Your task to perform on an android device: Open the calendar app, open the side menu, and click the "Day" option Image 0: 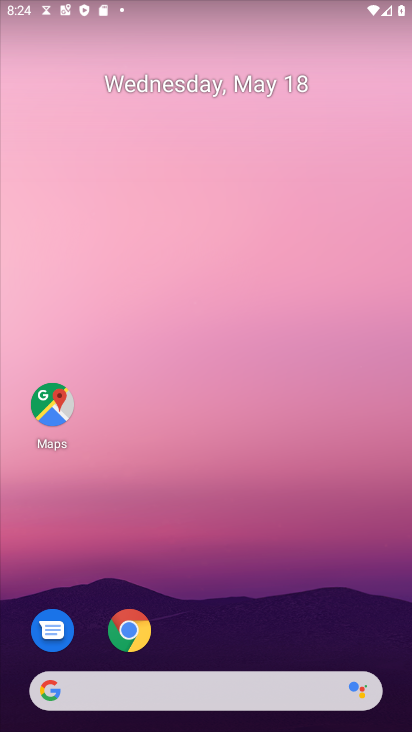
Step 0: press home button
Your task to perform on an android device: Open the calendar app, open the side menu, and click the "Day" option Image 1: 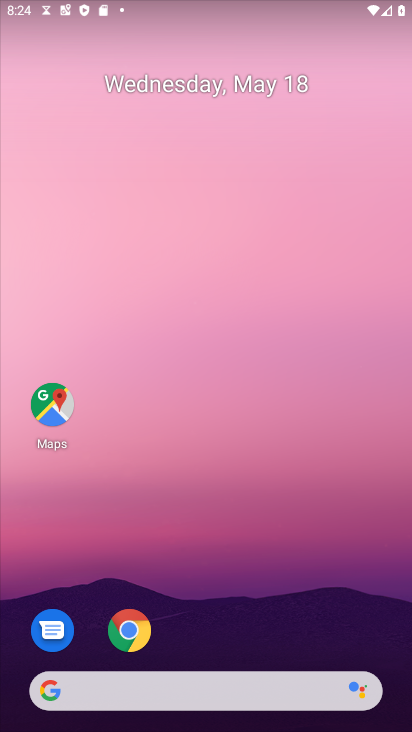
Step 1: drag from (147, 696) to (313, 221)
Your task to perform on an android device: Open the calendar app, open the side menu, and click the "Day" option Image 2: 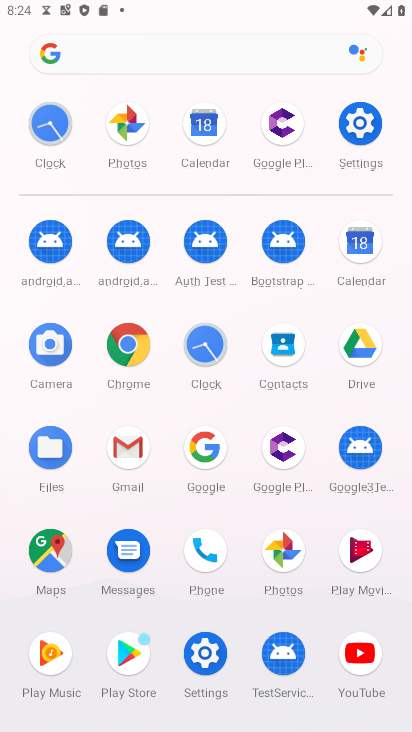
Step 2: click (357, 256)
Your task to perform on an android device: Open the calendar app, open the side menu, and click the "Day" option Image 3: 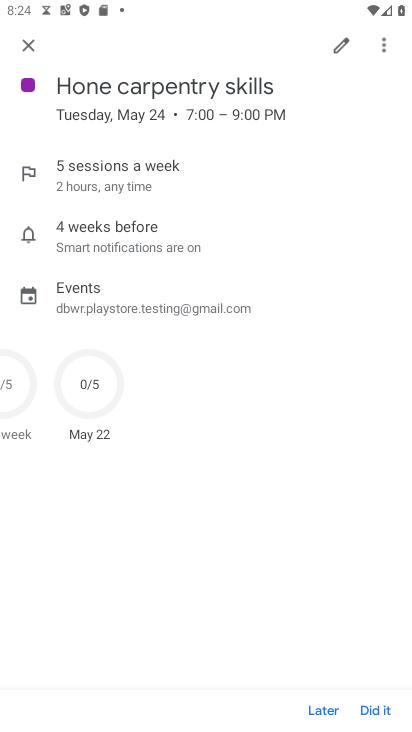
Step 3: click (30, 45)
Your task to perform on an android device: Open the calendar app, open the side menu, and click the "Day" option Image 4: 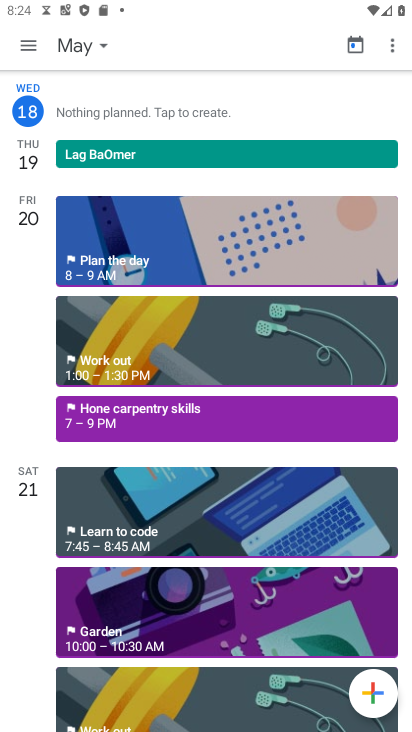
Step 4: click (30, 43)
Your task to perform on an android device: Open the calendar app, open the side menu, and click the "Day" option Image 5: 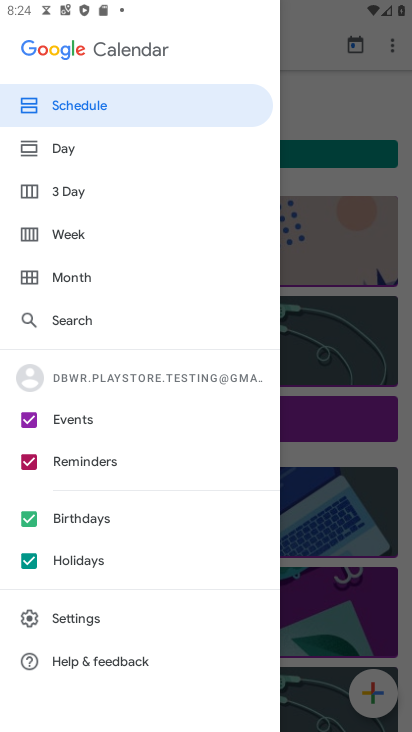
Step 5: click (71, 145)
Your task to perform on an android device: Open the calendar app, open the side menu, and click the "Day" option Image 6: 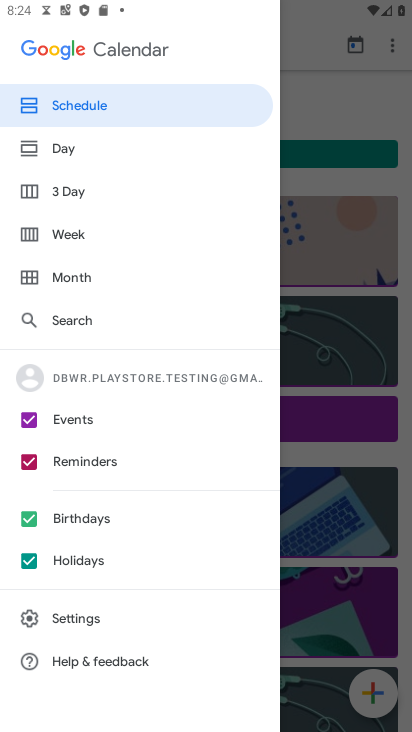
Step 6: click (77, 151)
Your task to perform on an android device: Open the calendar app, open the side menu, and click the "Day" option Image 7: 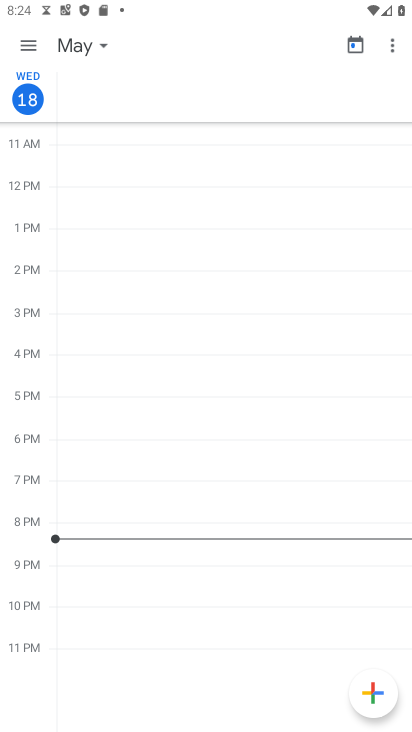
Step 7: task complete